Your task to perform on an android device: turn off improve location accuracy Image 0: 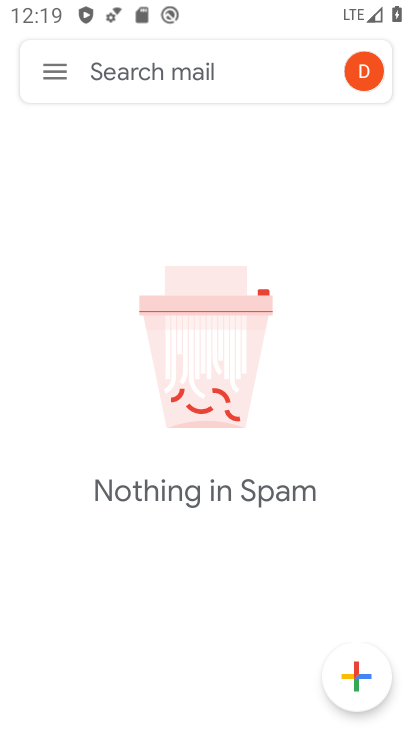
Step 0: press home button
Your task to perform on an android device: turn off improve location accuracy Image 1: 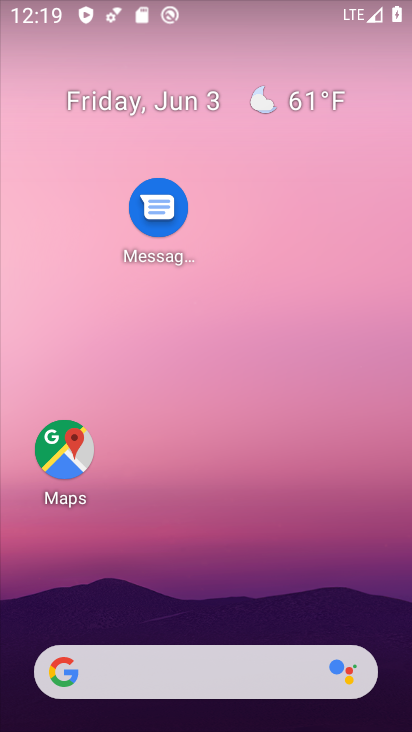
Step 1: drag from (200, 628) to (98, 0)
Your task to perform on an android device: turn off improve location accuracy Image 2: 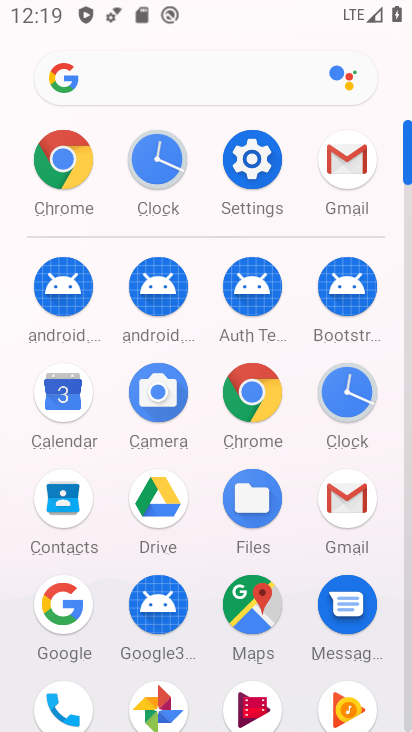
Step 2: click (246, 155)
Your task to perform on an android device: turn off improve location accuracy Image 3: 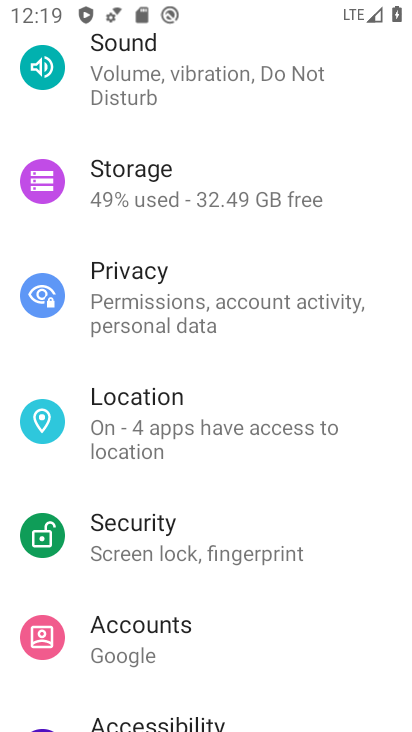
Step 3: drag from (281, 632) to (284, 442)
Your task to perform on an android device: turn off improve location accuracy Image 4: 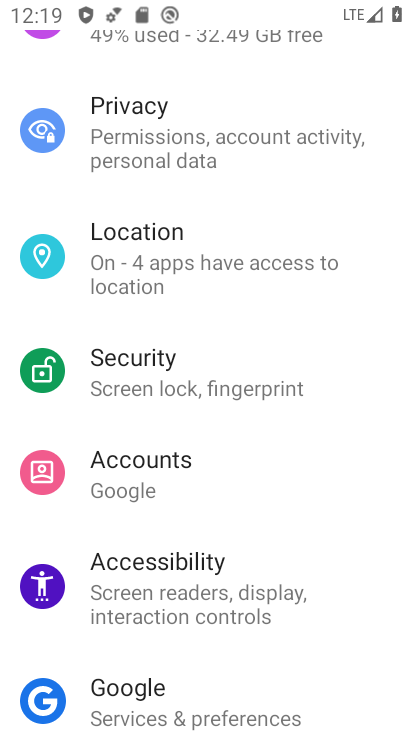
Step 4: click (153, 260)
Your task to perform on an android device: turn off improve location accuracy Image 5: 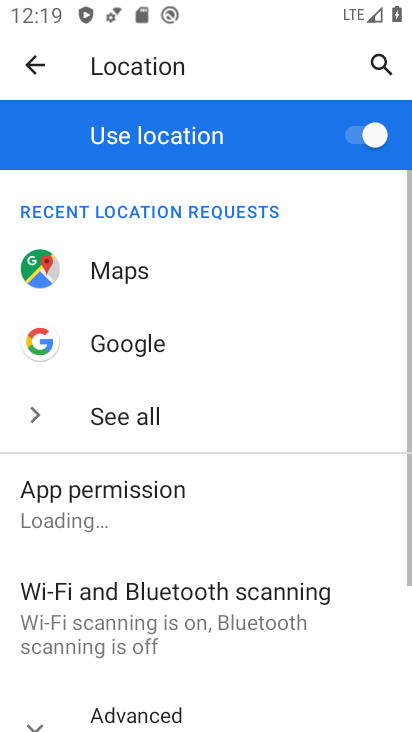
Step 5: drag from (142, 619) to (46, 1)
Your task to perform on an android device: turn off improve location accuracy Image 6: 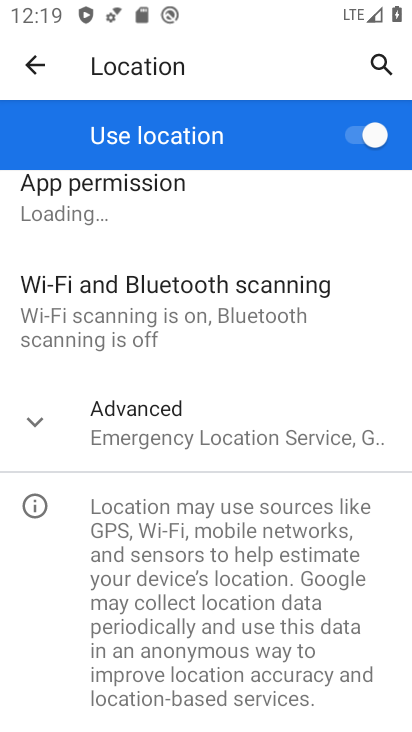
Step 6: click (109, 388)
Your task to perform on an android device: turn off improve location accuracy Image 7: 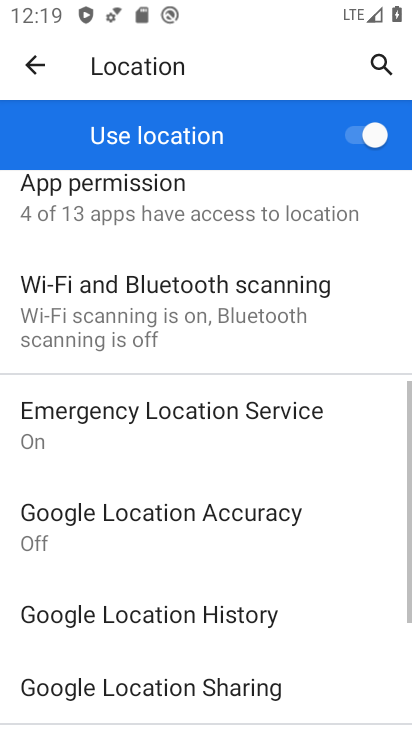
Step 7: click (269, 517)
Your task to perform on an android device: turn off improve location accuracy Image 8: 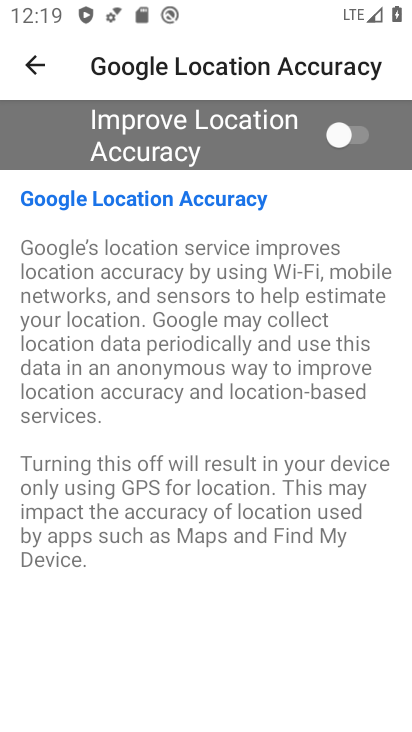
Step 8: task complete